Your task to perform on an android device: Go to accessibility settings Image 0: 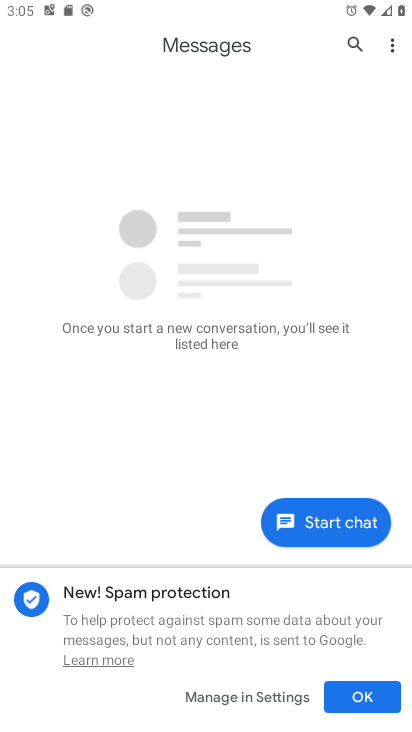
Step 0: press home button
Your task to perform on an android device: Go to accessibility settings Image 1: 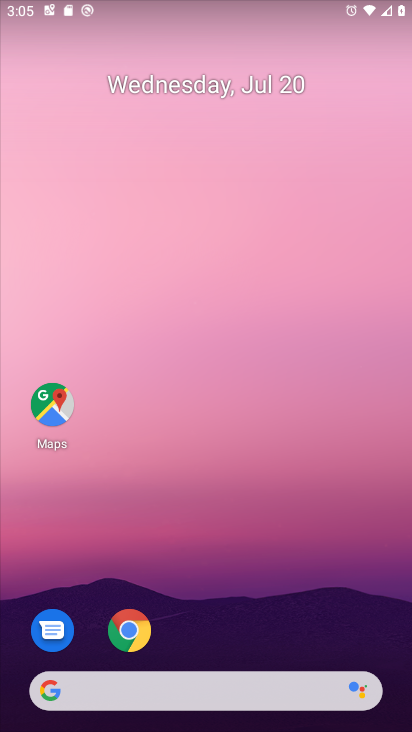
Step 1: drag from (248, 648) to (278, 294)
Your task to perform on an android device: Go to accessibility settings Image 2: 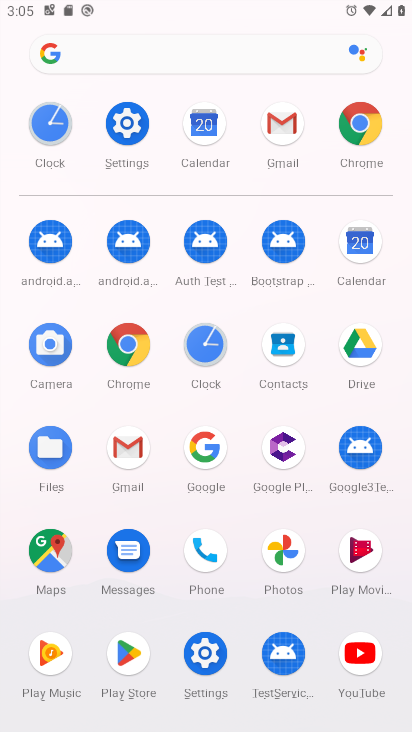
Step 2: click (137, 129)
Your task to perform on an android device: Go to accessibility settings Image 3: 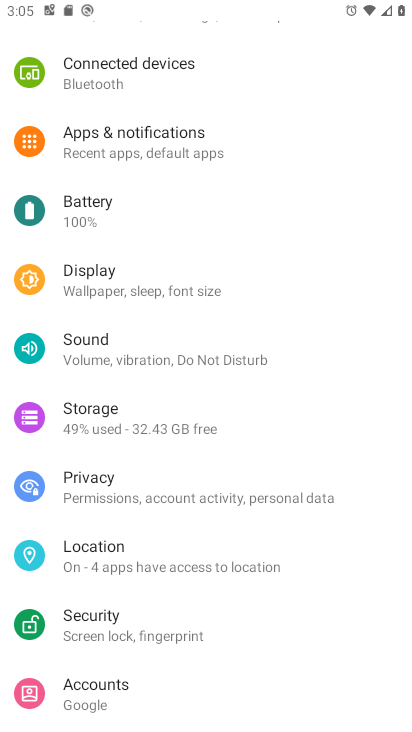
Step 3: drag from (248, 517) to (281, 254)
Your task to perform on an android device: Go to accessibility settings Image 4: 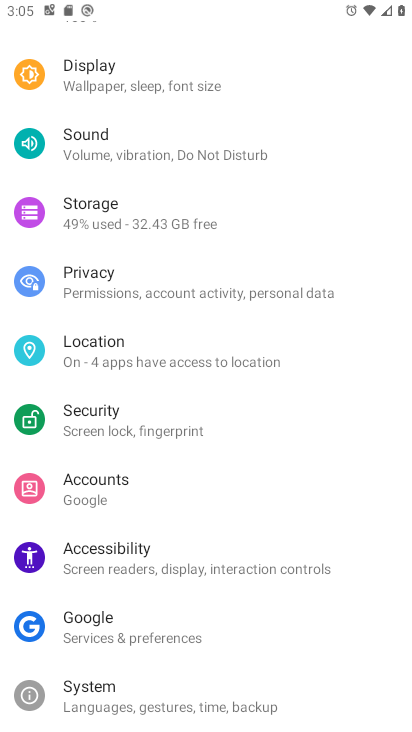
Step 4: drag from (260, 479) to (283, 218)
Your task to perform on an android device: Go to accessibility settings Image 5: 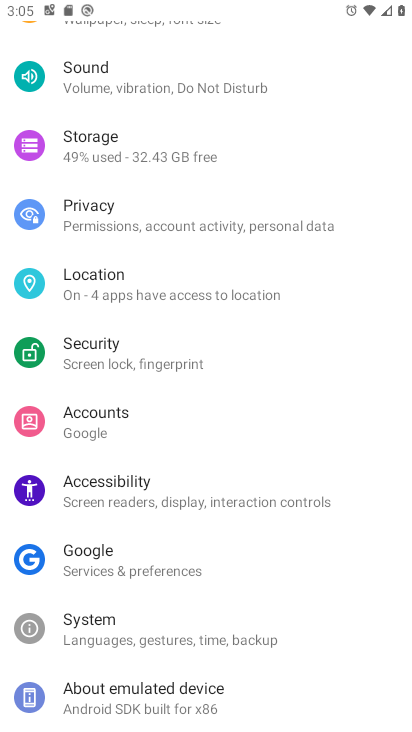
Step 5: click (200, 494)
Your task to perform on an android device: Go to accessibility settings Image 6: 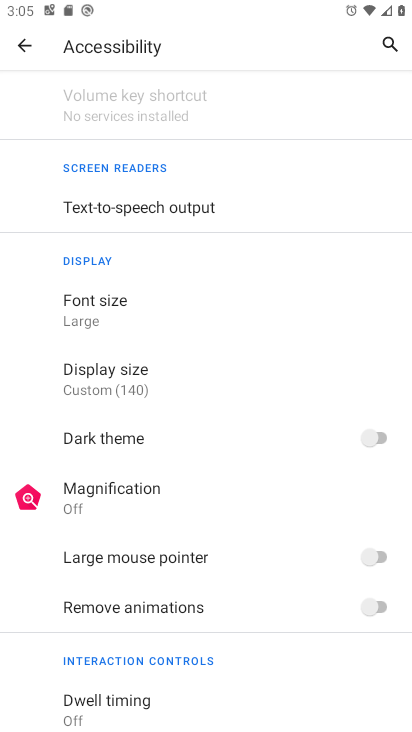
Step 6: task complete